Your task to perform on an android device: toggle show notifications on the lock screen Image 0: 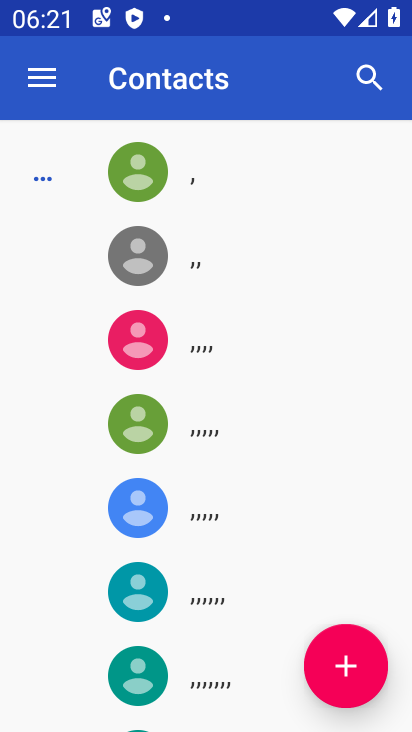
Step 0: press home button
Your task to perform on an android device: toggle show notifications on the lock screen Image 1: 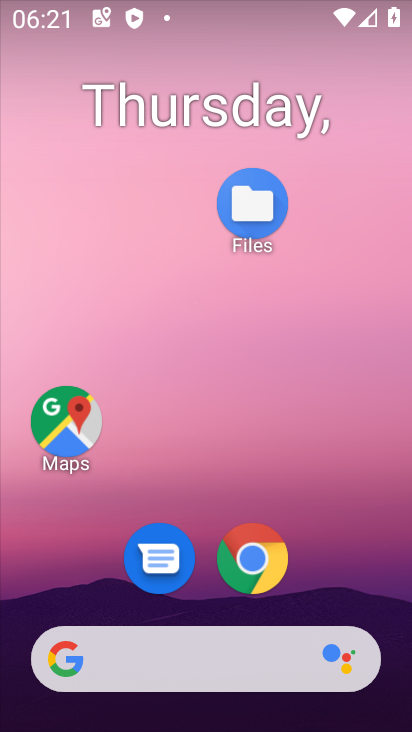
Step 1: drag from (308, 446) to (288, 123)
Your task to perform on an android device: toggle show notifications on the lock screen Image 2: 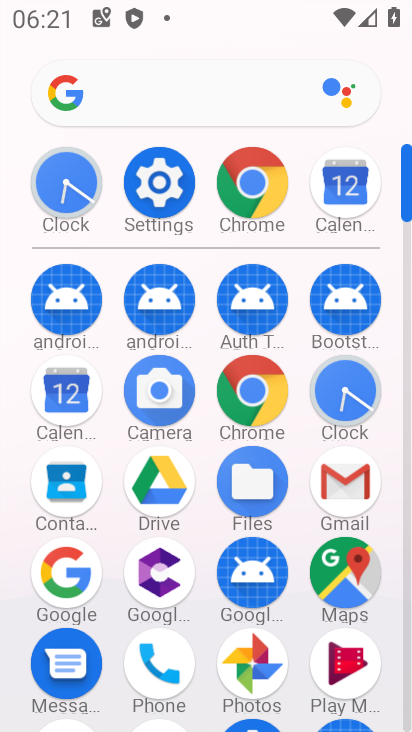
Step 2: drag from (318, 602) to (309, 67)
Your task to perform on an android device: toggle show notifications on the lock screen Image 3: 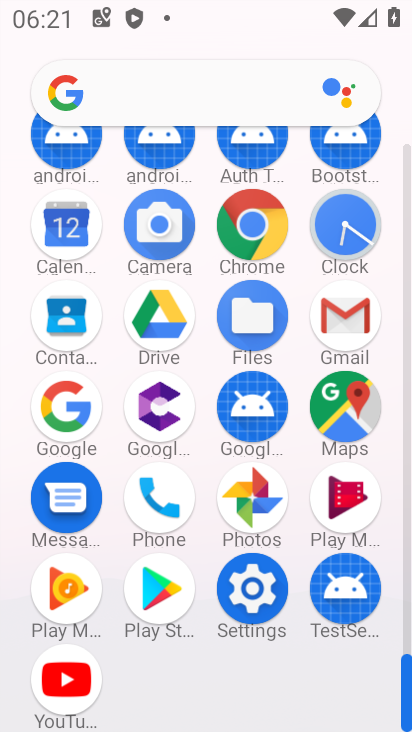
Step 3: drag from (308, 345) to (311, 85)
Your task to perform on an android device: toggle show notifications on the lock screen Image 4: 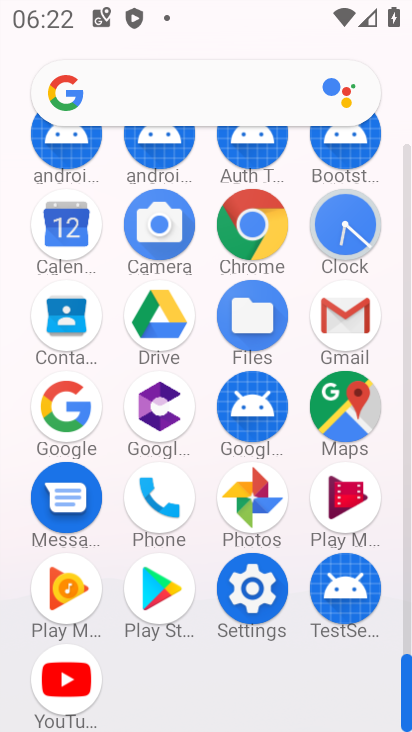
Step 4: click (248, 595)
Your task to perform on an android device: toggle show notifications on the lock screen Image 5: 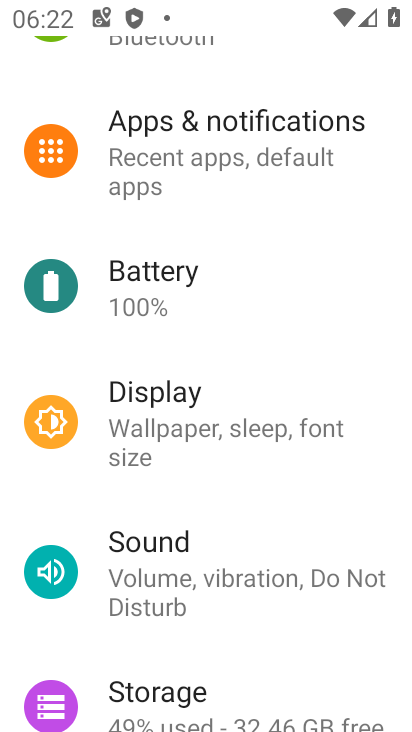
Step 5: click (211, 135)
Your task to perform on an android device: toggle show notifications on the lock screen Image 6: 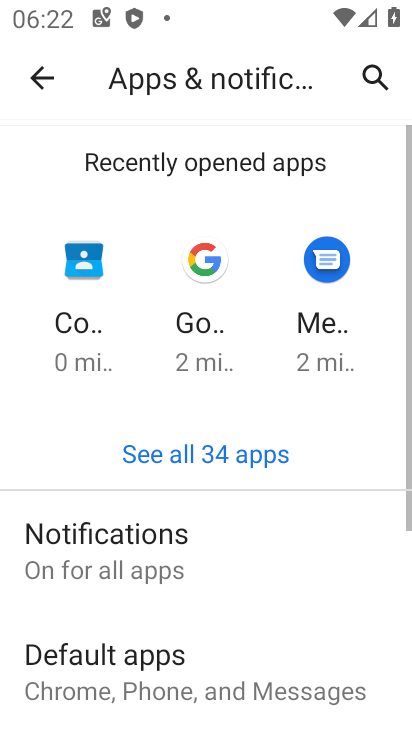
Step 6: click (145, 542)
Your task to perform on an android device: toggle show notifications on the lock screen Image 7: 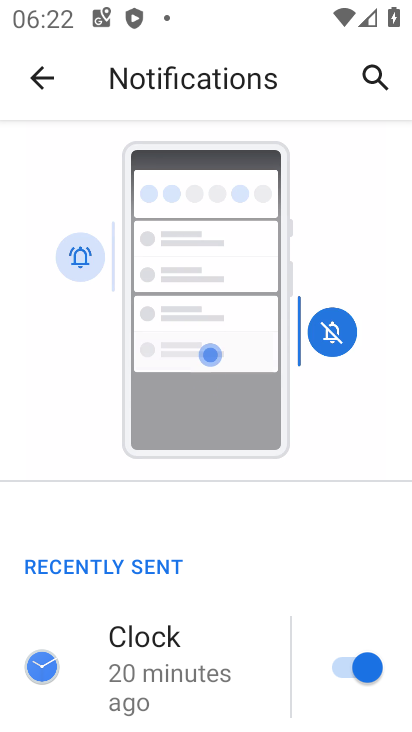
Step 7: drag from (182, 667) to (246, 220)
Your task to perform on an android device: toggle show notifications on the lock screen Image 8: 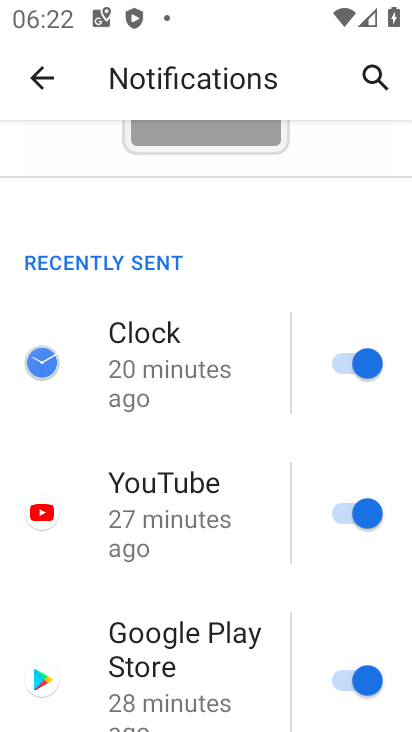
Step 8: drag from (172, 649) to (216, 170)
Your task to perform on an android device: toggle show notifications on the lock screen Image 9: 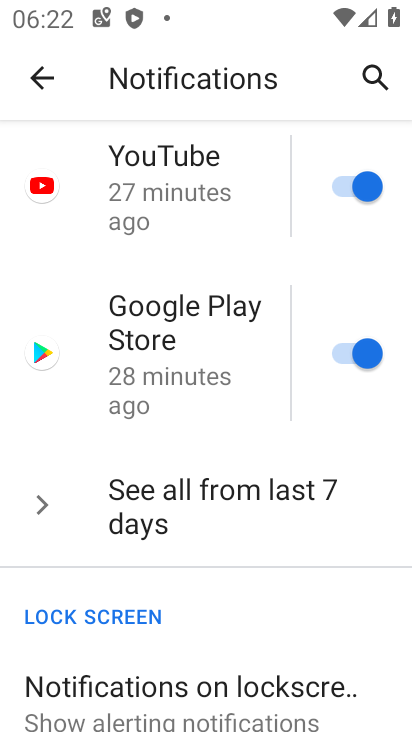
Step 9: click (111, 716)
Your task to perform on an android device: toggle show notifications on the lock screen Image 10: 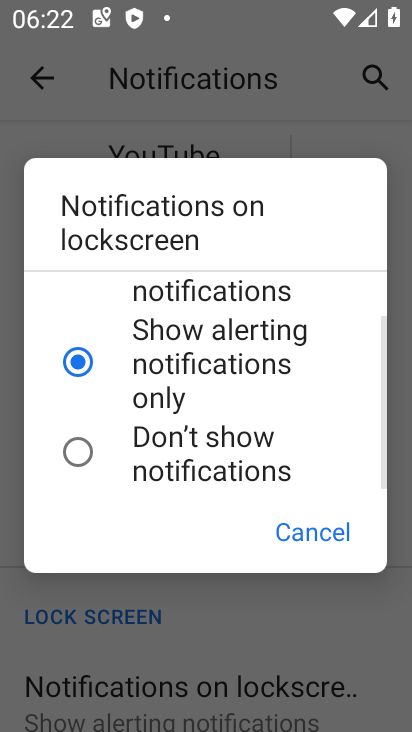
Step 10: click (76, 452)
Your task to perform on an android device: toggle show notifications on the lock screen Image 11: 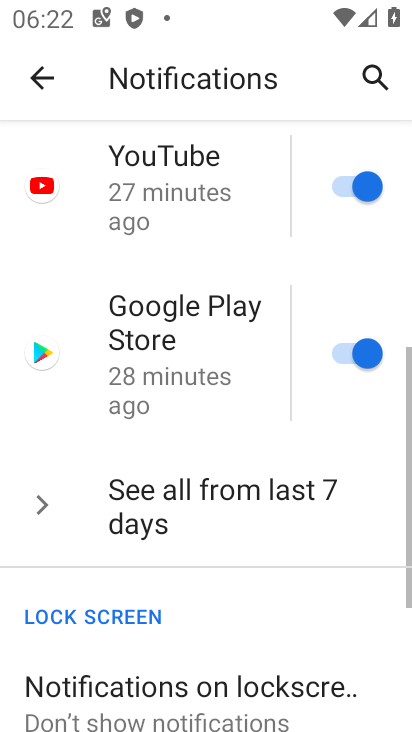
Step 11: task complete